Your task to perform on an android device: open the mobile data screen to see how much data has been used Image 0: 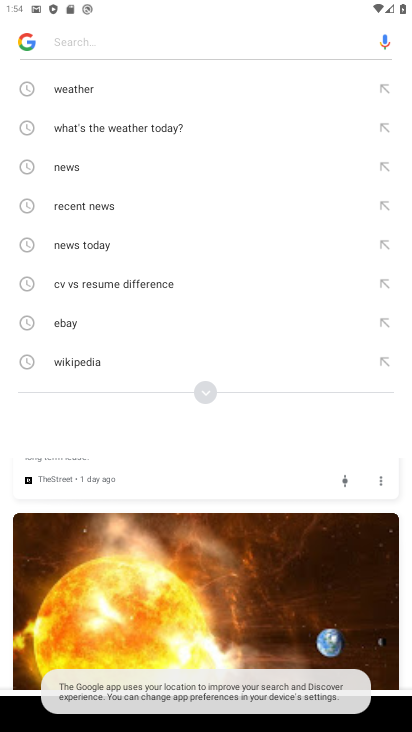
Step 0: press home button
Your task to perform on an android device: open the mobile data screen to see how much data has been used Image 1: 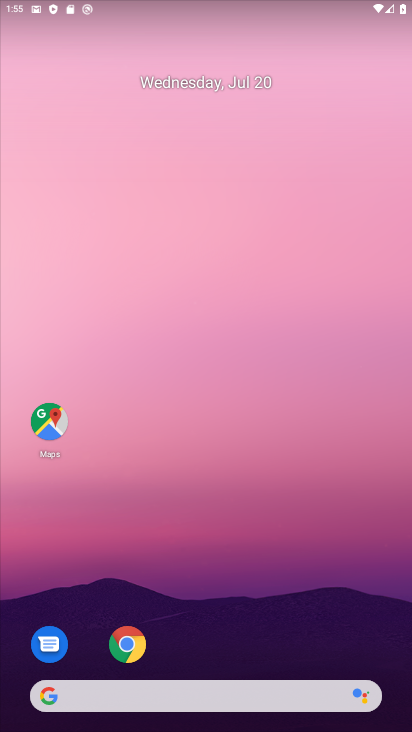
Step 1: drag from (267, 641) to (277, 1)
Your task to perform on an android device: open the mobile data screen to see how much data has been used Image 2: 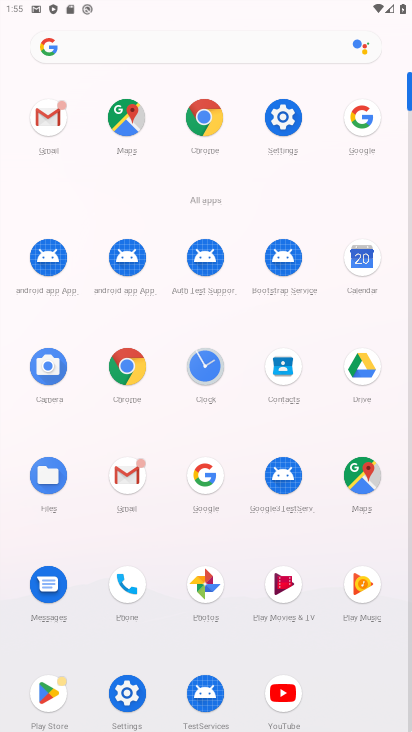
Step 2: drag from (281, 2) to (277, 278)
Your task to perform on an android device: open the mobile data screen to see how much data has been used Image 3: 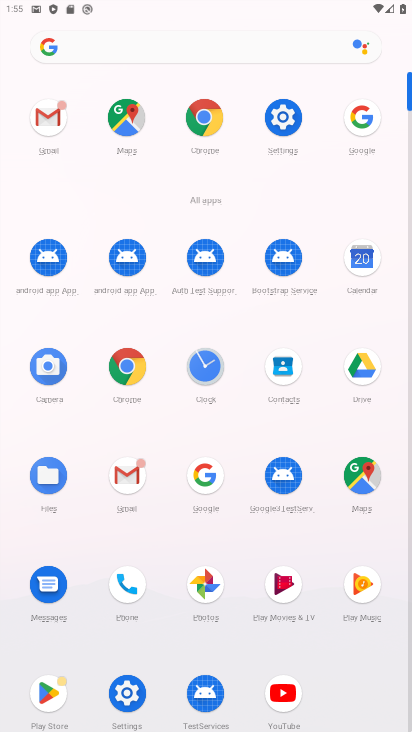
Step 3: drag from (375, 29) to (325, 499)
Your task to perform on an android device: open the mobile data screen to see how much data has been used Image 4: 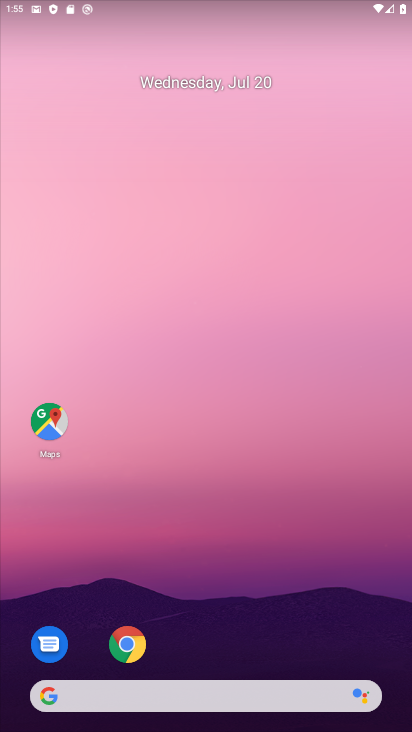
Step 4: drag from (372, 3) to (358, 468)
Your task to perform on an android device: open the mobile data screen to see how much data has been used Image 5: 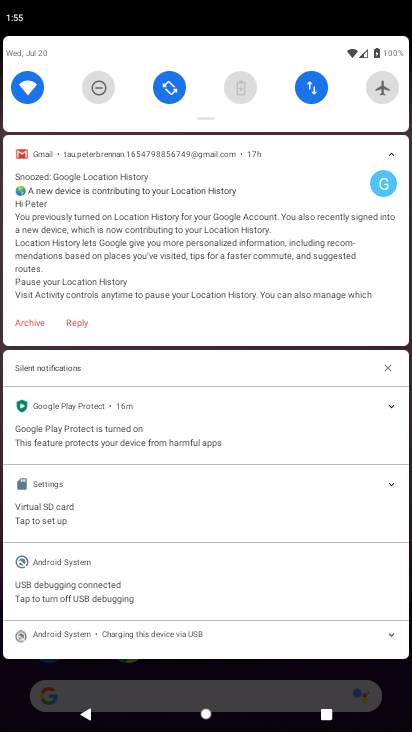
Step 5: click (324, 84)
Your task to perform on an android device: open the mobile data screen to see how much data has been used Image 6: 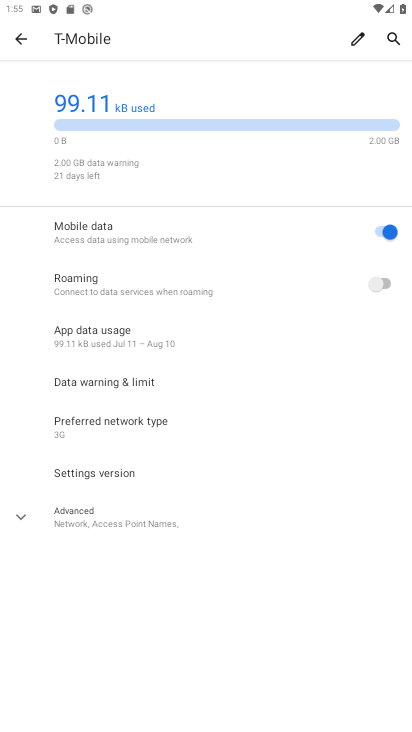
Step 6: task complete